Your task to perform on an android device: Open the calendar app, open the side menu, and click the "Day" option Image 0: 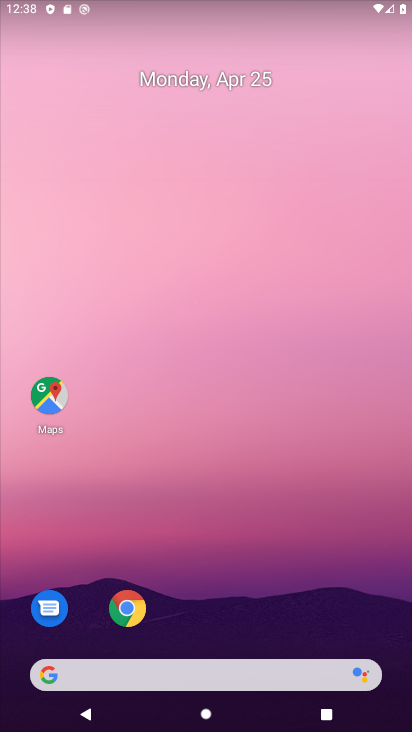
Step 0: drag from (314, 496) to (286, 0)
Your task to perform on an android device: Open the calendar app, open the side menu, and click the "Day" option Image 1: 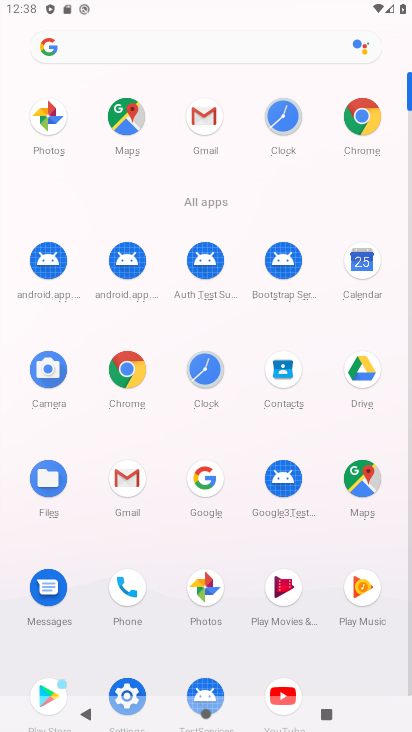
Step 1: click (365, 254)
Your task to perform on an android device: Open the calendar app, open the side menu, and click the "Day" option Image 2: 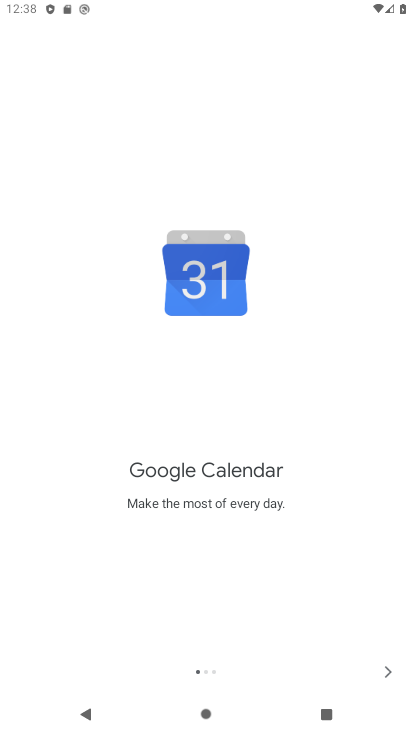
Step 2: click (393, 670)
Your task to perform on an android device: Open the calendar app, open the side menu, and click the "Day" option Image 3: 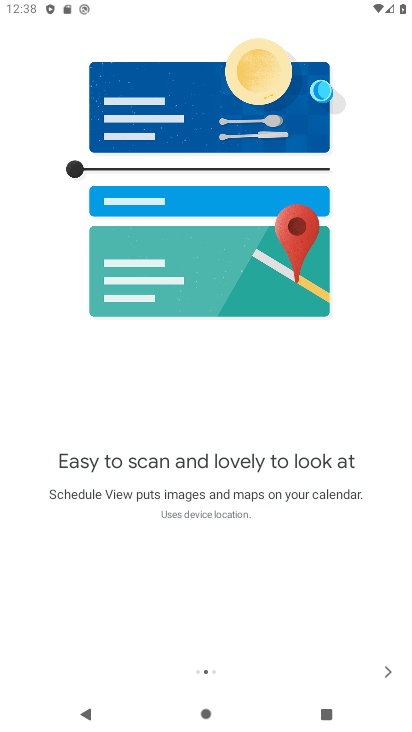
Step 3: click (385, 673)
Your task to perform on an android device: Open the calendar app, open the side menu, and click the "Day" option Image 4: 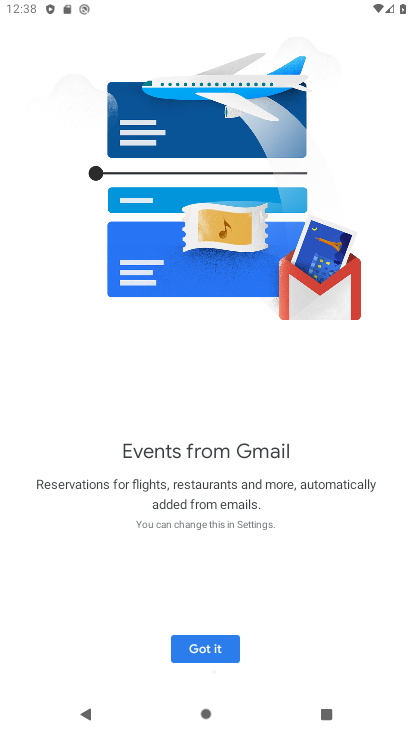
Step 4: click (386, 672)
Your task to perform on an android device: Open the calendar app, open the side menu, and click the "Day" option Image 5: 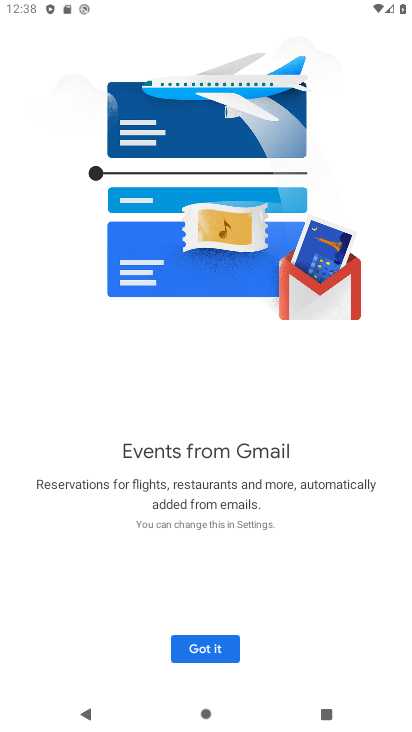
Step 5: click (214, 646)
Your task to perform on an android device: Open the calendar app, open the side menu, and click the "Day" option Image 6: 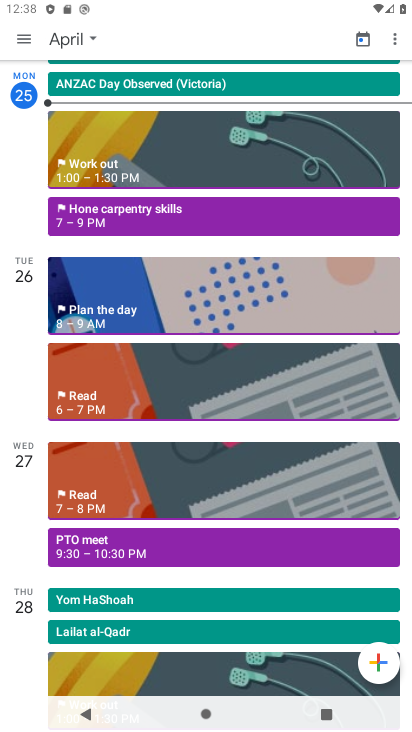
Step 6: click (28, 39)
Your task to perform on an android device: Open the calendar app, open the side menu, and click the "Day" option Image 7: 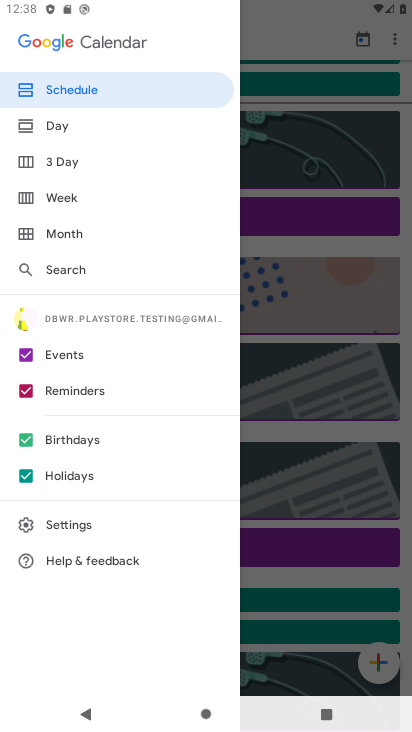
Step 7: click (65, 124)
Your task to perform on an android device: Open the calendar app, open the side menu, and click the "Day" option Image 8: 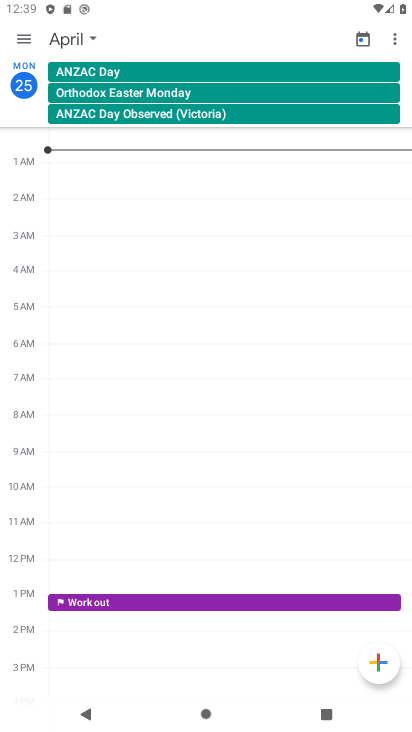
Step 8: task complete